Your task to perform on an android device: toggle priority inbox in the gmail app Image 0: 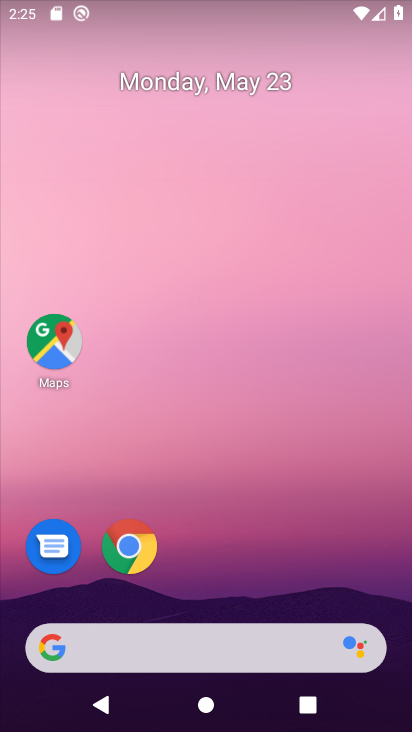
Step 0: drag from (228, 351) to (254, 115)
Your task to perform on an android device: toggle priority inbox in the gmail app Image 1: 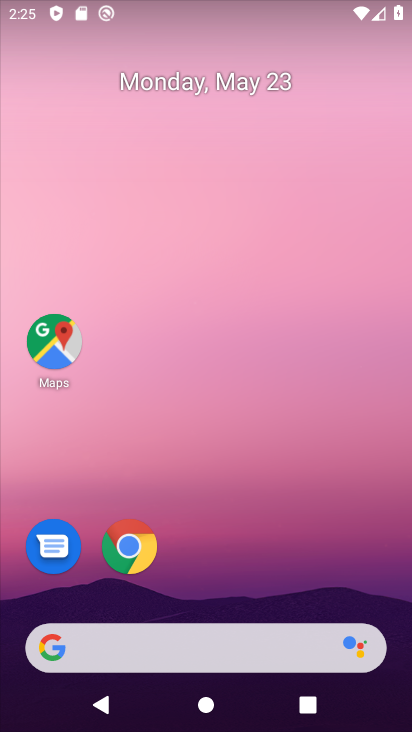
Step 1: drag from (252, 519) to (282, 156)
Your task to perform on an android device: toggle priority inbox in the gmail app Image 2: 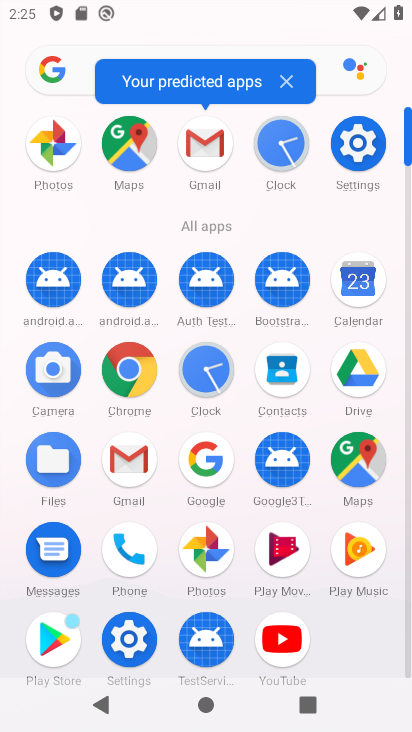
Step 2: click (209, 141)
Your task to perform on an android device: toggle priority inbox in the gmail app Image 3: 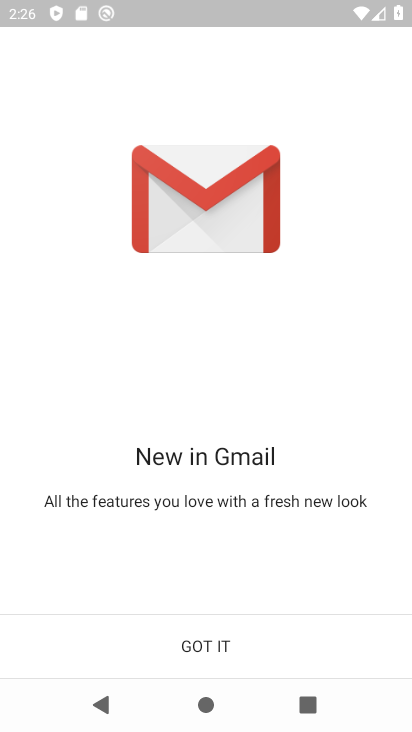
Step 3: click (220, 658)
Your task to perform on an android device: toggle priority inbox in the gmail app Image 4: 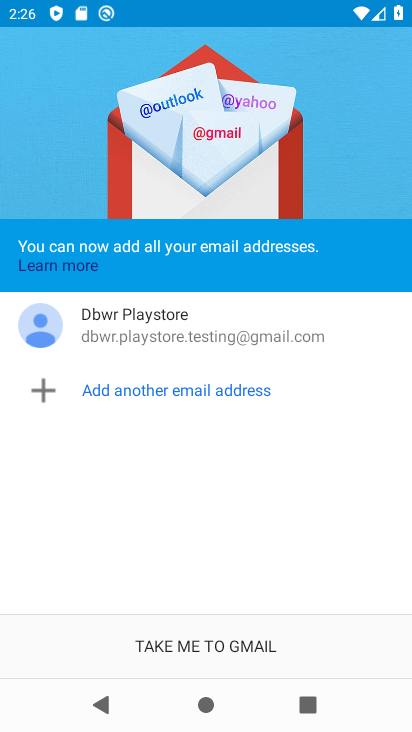
Step 4: click (219, 655)
Your task to perform on an android device: toggle priority inbox in the gmail app Image 5: 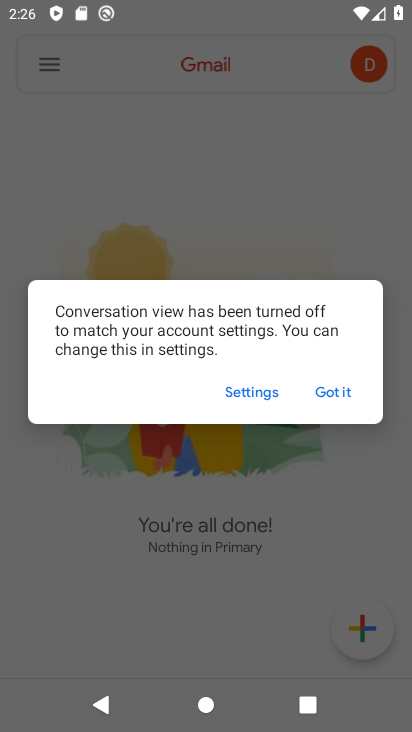
Step 5: click (323, 396)
Your task to perform on an android device: toggle priority inbox in the gmail app Image 6: 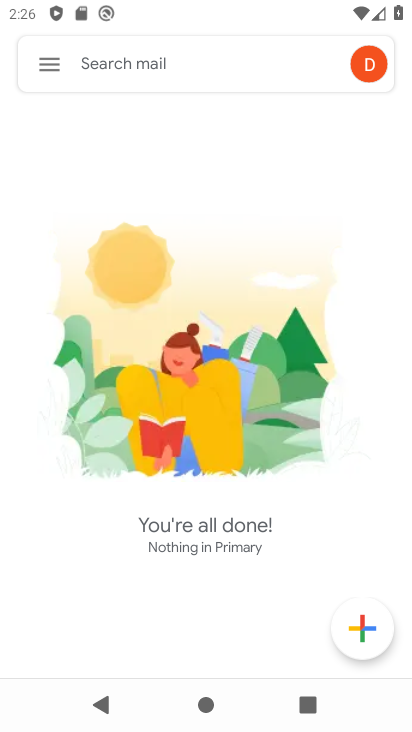
Step 6: click (54, 71)
Your task to perform on an android device: toggle priority inbox in the gmail app Image 7: 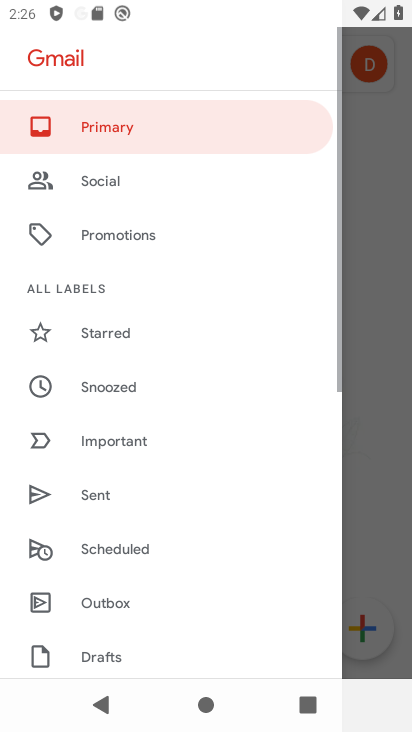
Step 7: drag from (113, 591) to (149, 210)
Your task to perform on an android device: toggle priority inbox in the gmail app Image 8: 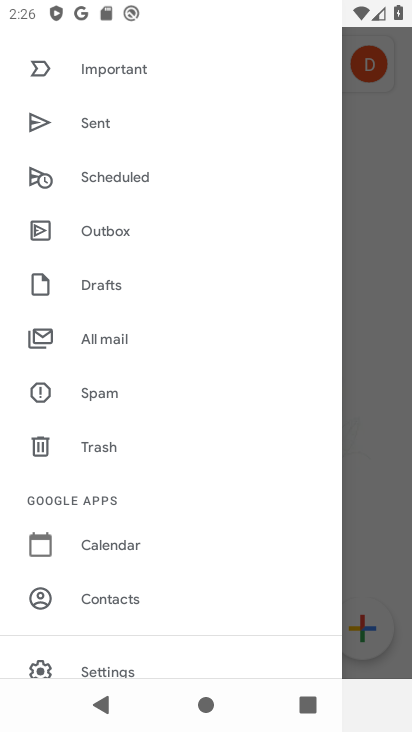
Step 8: drag from (130, 585) to (172, 235)
Your task to perform on an android device: toggle priority inbox in the gmail app Image 9: 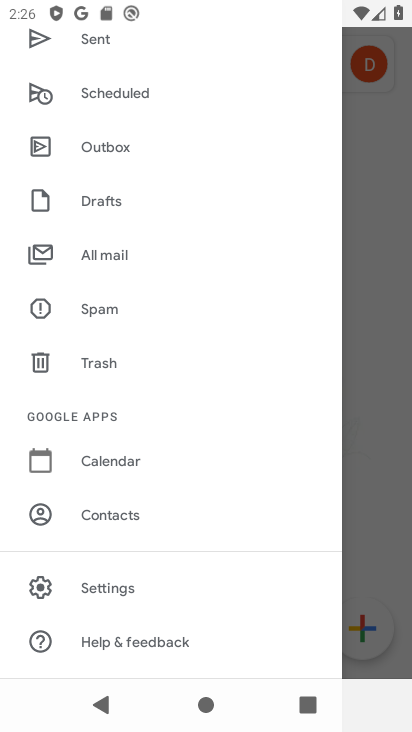
Step 9: click (95, 594)
Your task to perform on an android device: toggle priority inbox in the gmail app Image 10: 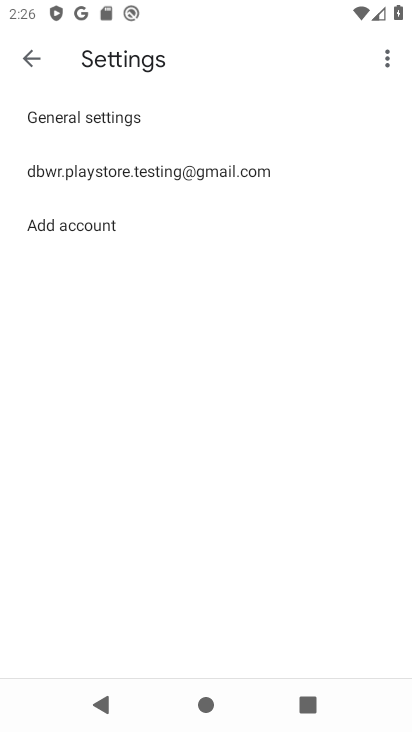
Step 10: click (188, 169)
Your task to perform on an android device: toggle priority inbox in the gmail app Image 11: 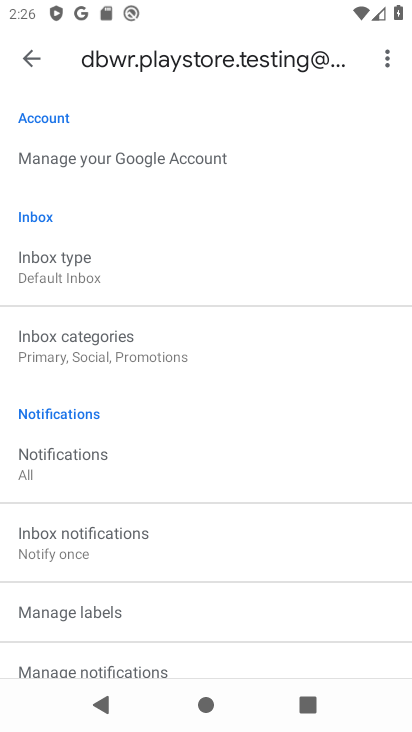
Step 11: click (91, 262)
Your task to perform on an android device: toggle priority inbox in the gmail app Image 12: 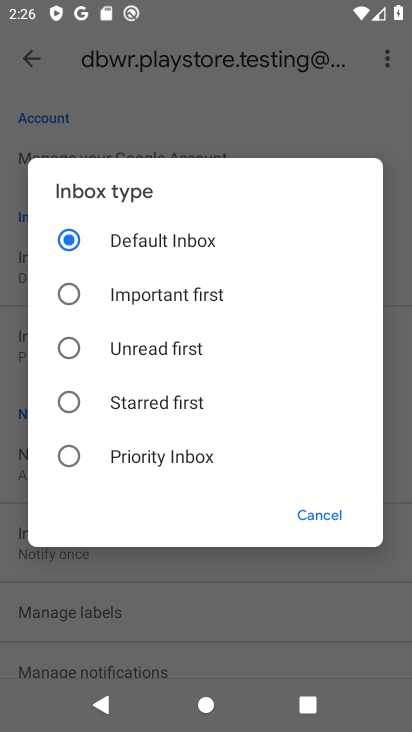
Step 12: click (143, 456)
Your task to perform on an android device: toggle priority inbox in the gmail app Image 13: 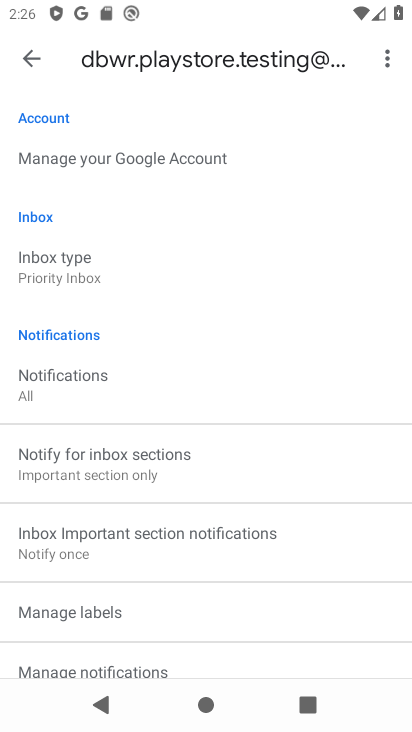
Step 13: task complete